Your task to perform on an android device: open a new tab in the chrome app Image 0: 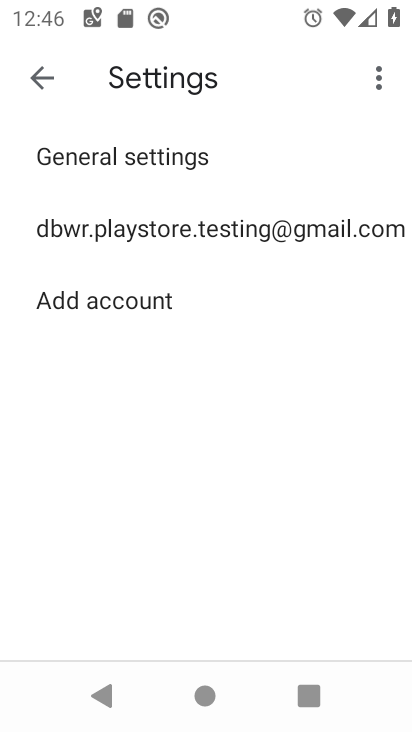
Step 0: press home button
Your task to perform on an android device: open a new tab in the chrome app Image 1: 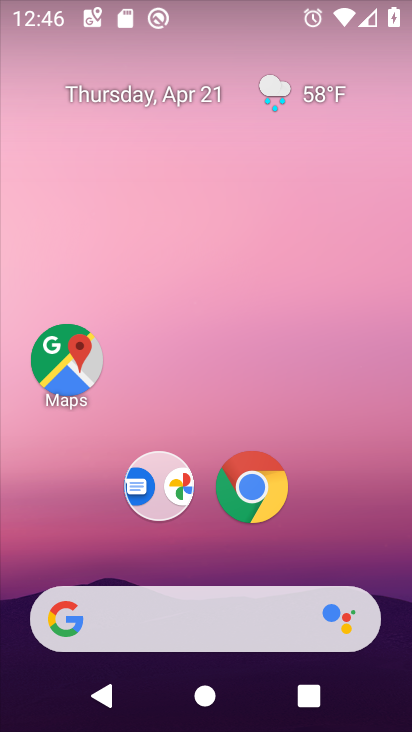
Step 1: drag from (307, 651) to (298, 139)
Your task to perform on an android device: open a new tab in the chrome app Image 2: 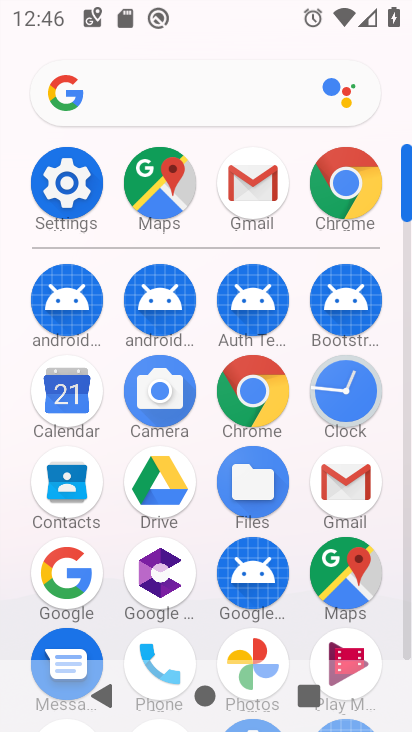
Step 2: click (346, 179)
Your task to perform on an android device: open a new tab in the chrome app Image 3: 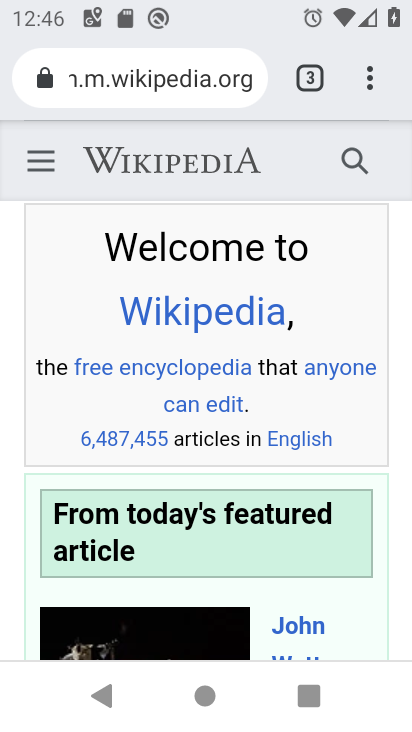
Step 3: click (368, 76)
Your task to perform on an android device: open a new tab in the chrome app Image 4: 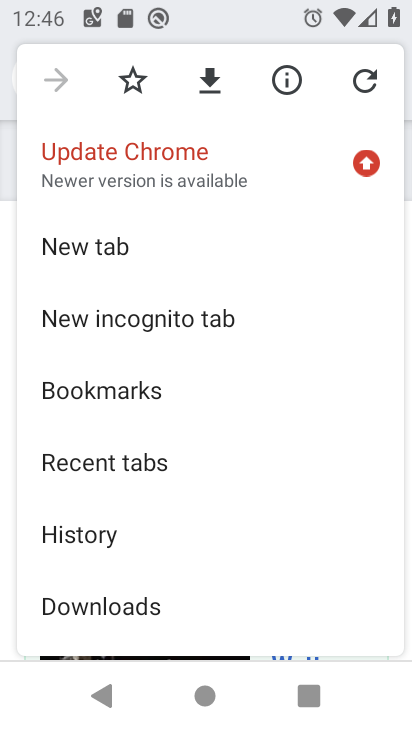
Step 4: click (139, 236)
Your task to perform on an android device: open a new tab in the chrome app Image 5: 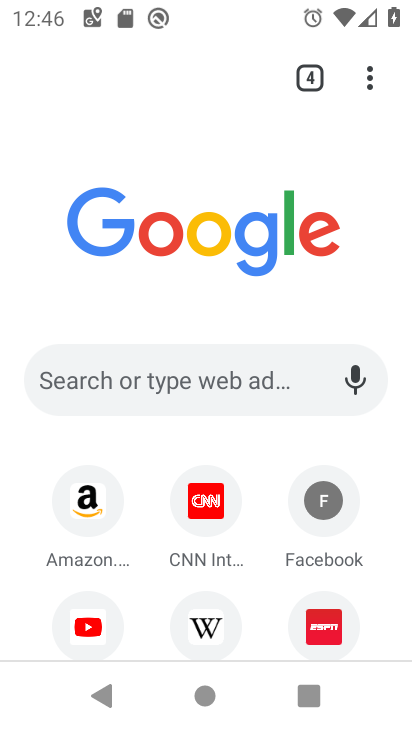
Step 5: task complete